Your task to perform on an android device: see creations saved in the google photos Image 0: 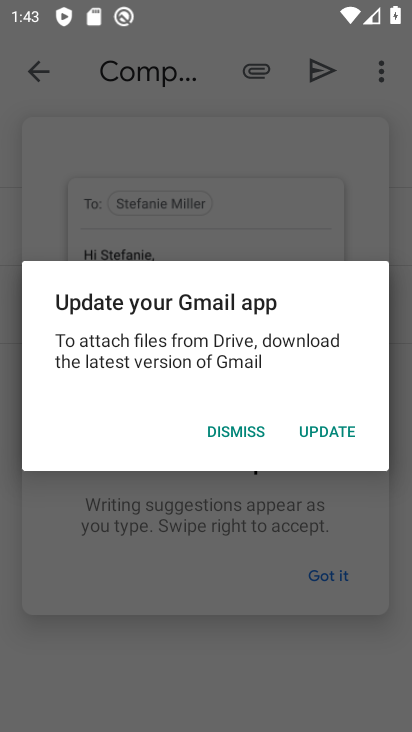
Step 0: press home button
Your task to perform on an android device: see creations saved in the google photos Image 1: 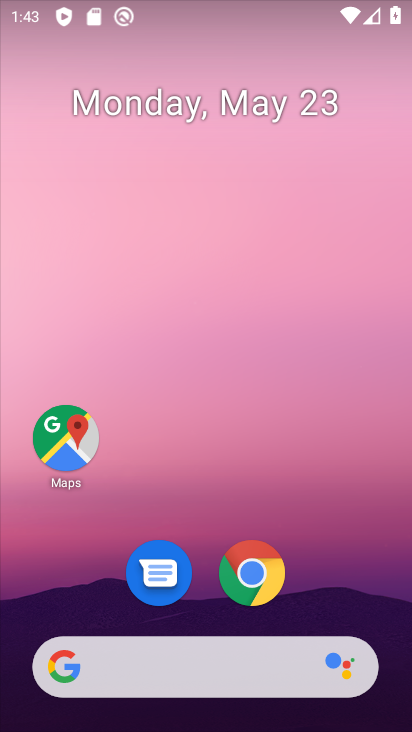
Step 1: drag from (325, 565) to (297, 110)
Your task to perform on an android device: see creations saved in the google photos Image 2: 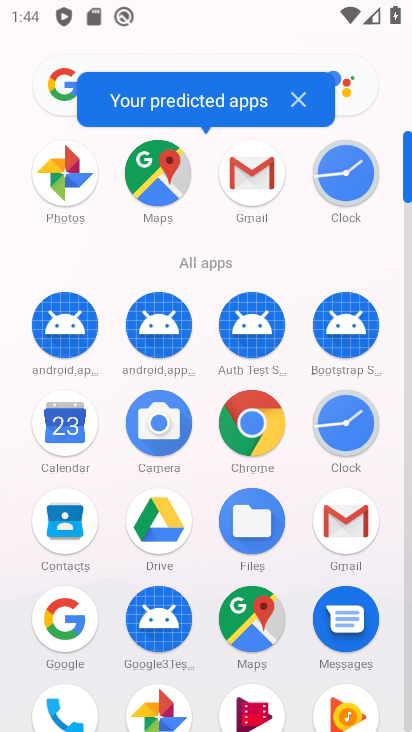
Step 2: click (48, 176)
Your task to perform on an android device: see creations saved in the google photos Image 3: 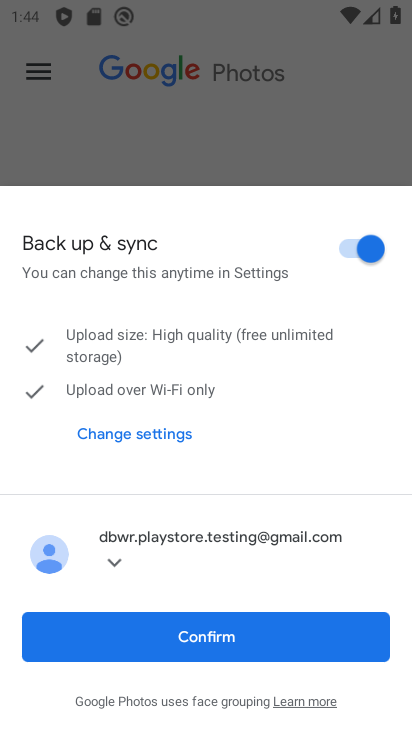
Step 3: click (270, 649)
Your task to perform on an android device: see creations saved in the google photos Image 4: 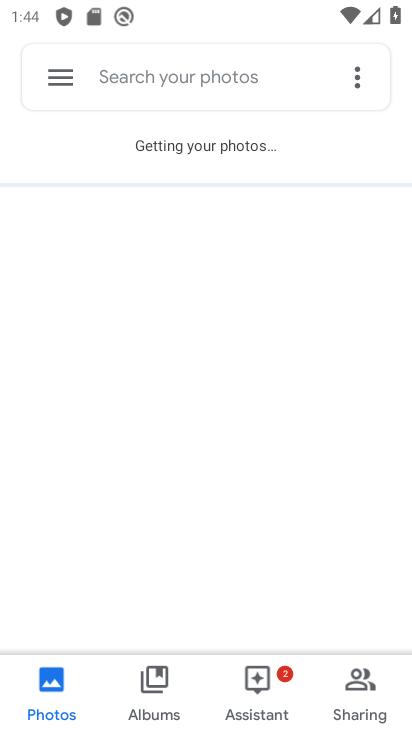
Step 4: click (252, 697)
Your task to perform on an android device: see creations saved in the google photos Image 5: 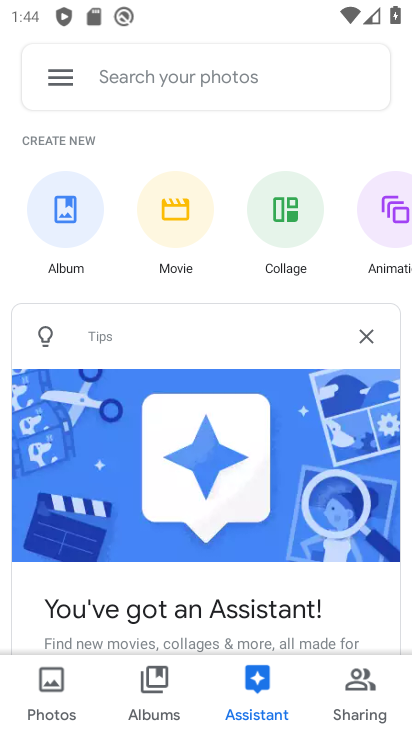
Step 5: click (358, 685)
Your task to perform on an android device: see creations saved in the google photos Image 6: 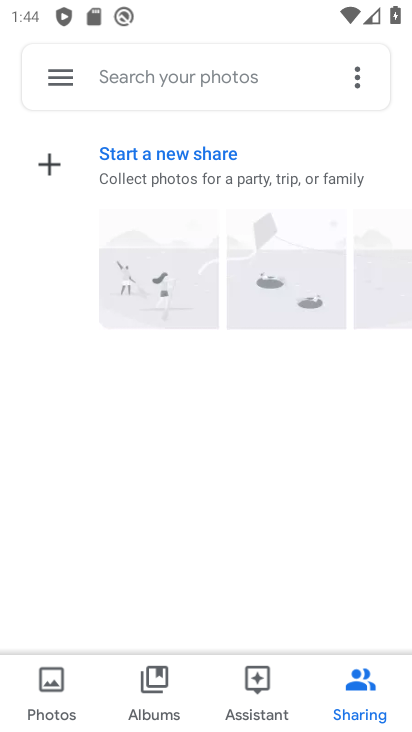
Step 6: task complete